Your task to perform on an android device: What's the weather? Image 0: 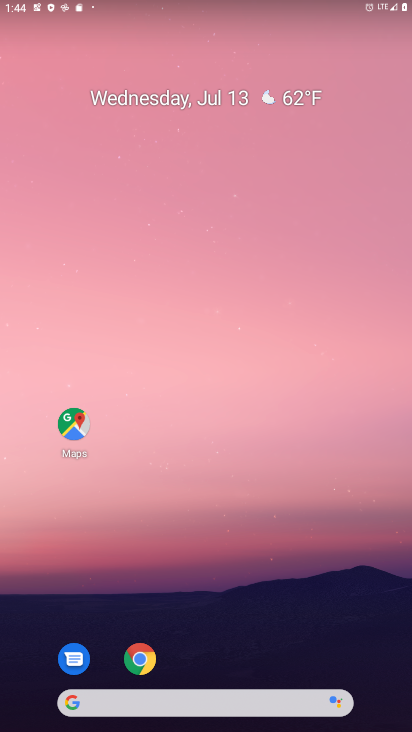
Step 0: drag from (213, 727) to (200, 167)
Your task to perform on an android device: What's the weather? Image 1: 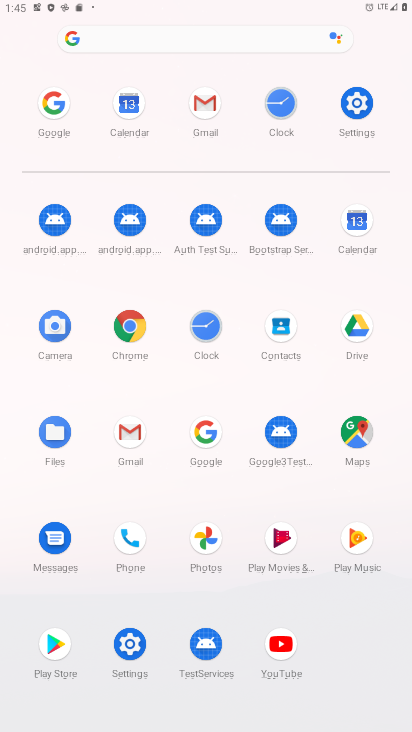
Step 1: click (207, 436)
Your task to perform on an android device: What's the weather? Image 2: 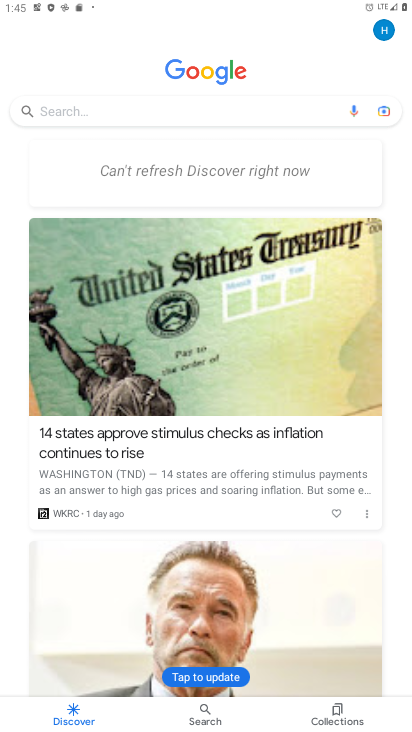
Step 2: click (197, 108)
Your task to perform on an android device: What's the weather? Image 3: 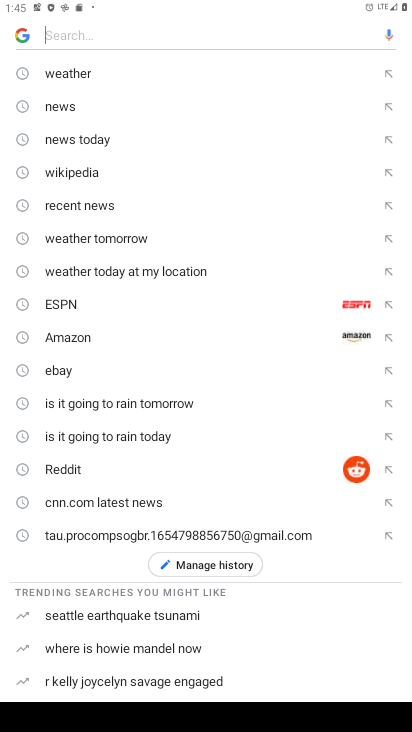
Step 3: click (79, 76)
Your task to perform on an android device: What's the weather? Image 4: 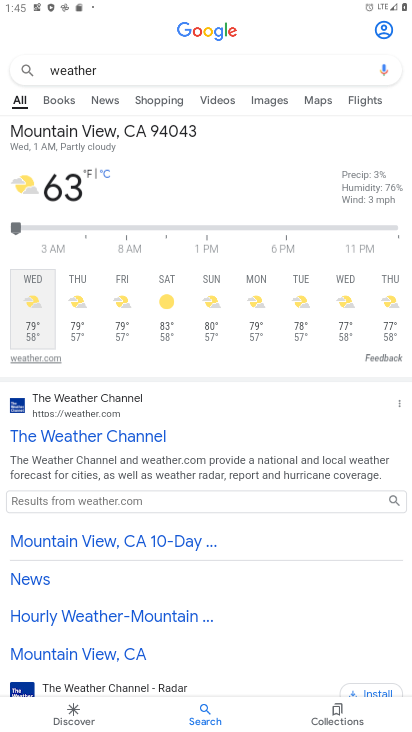
Step 4: task complete